Your task to perform on an android device: Search for sushi restaurants on Maps Image 0: 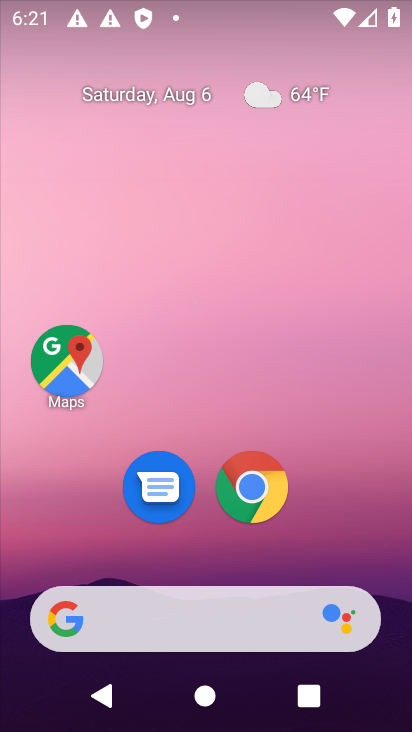
Step 0: drag from (138, 578) to (201, 66)
Your task to perform on an android device: Search for sushi restaurants on Maps Image 1: 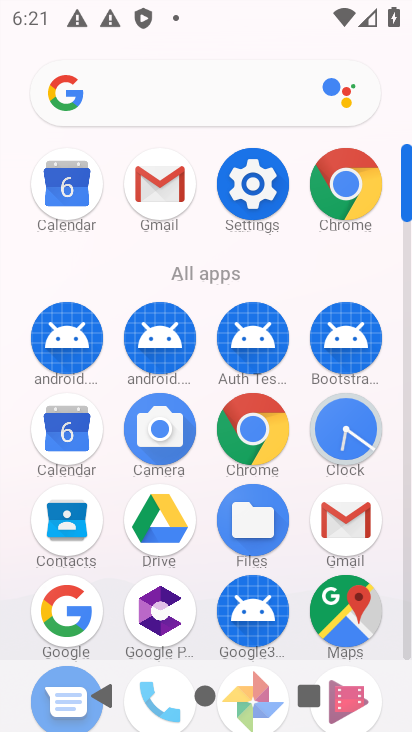
Step 1: click (338, 605)
Your task to perform on an android device: Search for sushi restaurants on Maps Image 2: 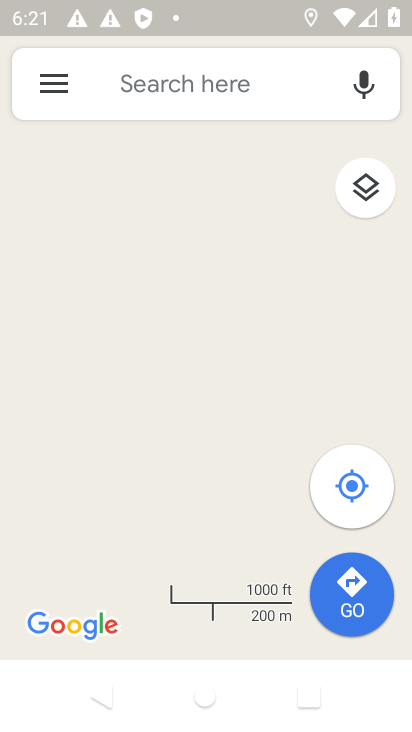
Step 2: click (150, 66)
Your task to perform on an android device: Search for sushi restaurants on Maps Image 3: 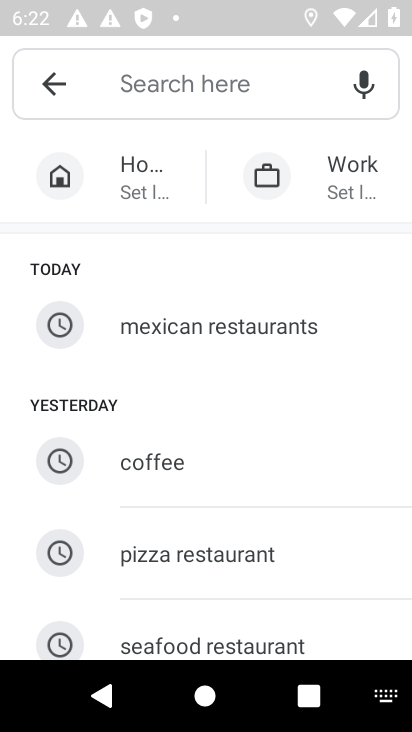
Step 3: drag from (184, 608) to (263, 70)
Your task to perform on an android device: Search for sushi restaurants on Maps Image 4: 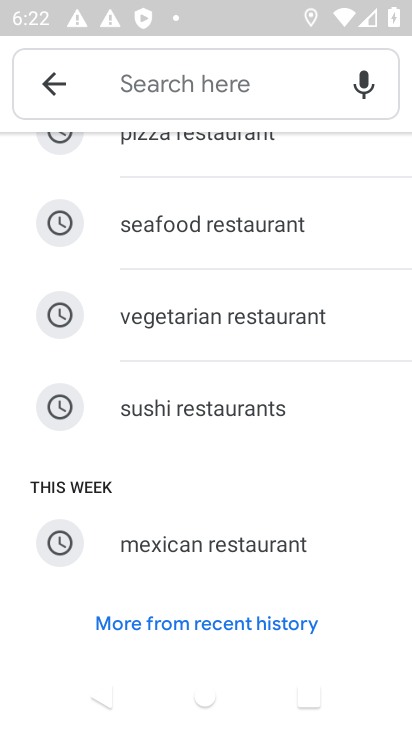
Step 4: click (214, 404)
Your task to perform on an android device: Search for sushi restaurants on Maps Image 5: 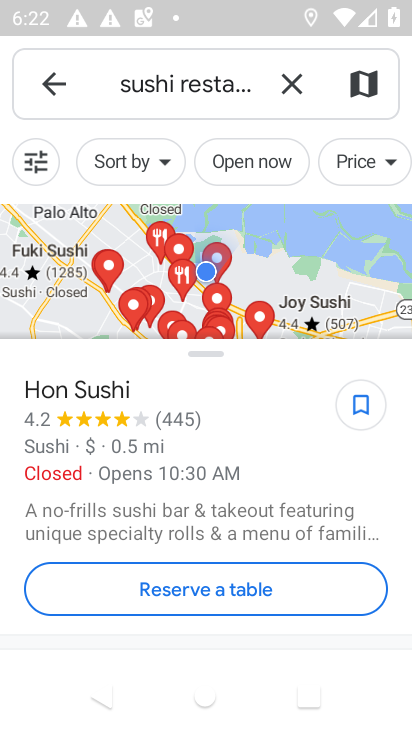
Step 5: task complete